Your task to perform on an android device: Search for seafood restaurants on Google Maps Image 0: 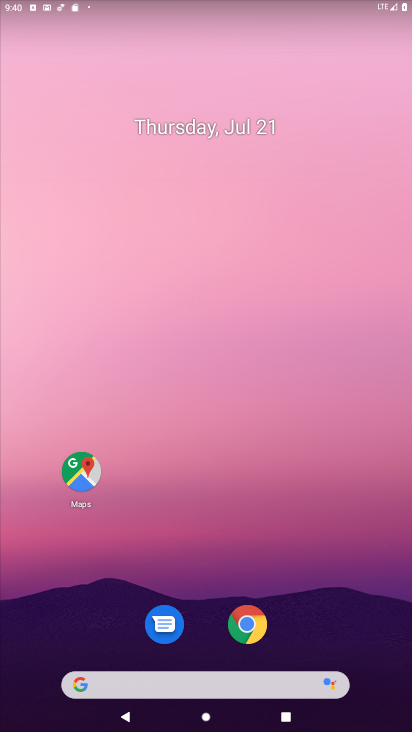
Step 0: drag from (26, 591) to (214, 242)
Your task to perform on an android device: Search for seafood restaurants on Google Maps Image 1: 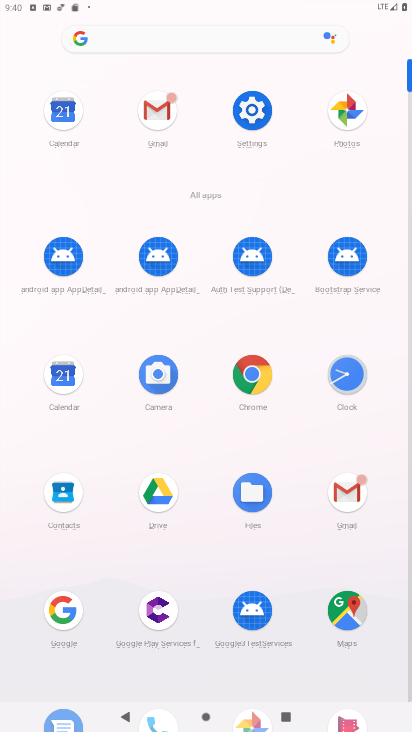
Step 1: click (357, 609)
Your task to perform on an android device: Search for seafood restaurants on Google Maps Image 2: 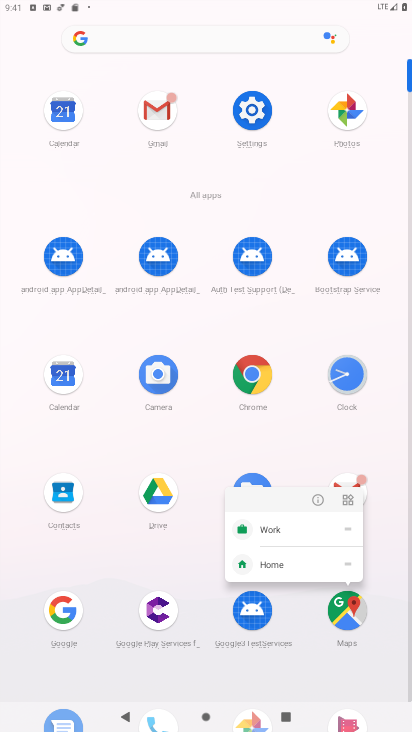
Step 2: press back button
Your task to perform on an android device: Search for seafood restaurants on Google Maps Image 3: 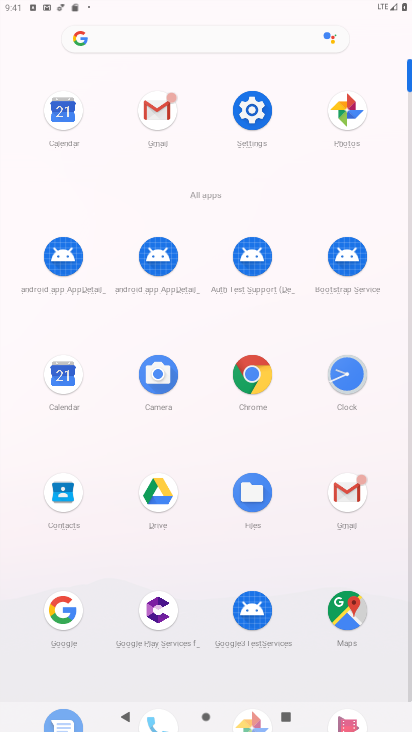
Step 3: click (334, 637)
Your task to perform on an android device: Search for seafood restaurants on Google Maps Image 4: 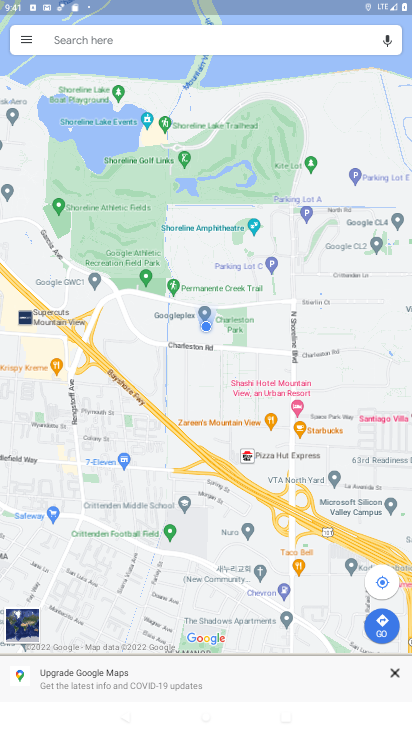
Step 4: click (248, 33)
Your task to perform on an android device: Search for seafood restaurants on Google Maps Image 5: 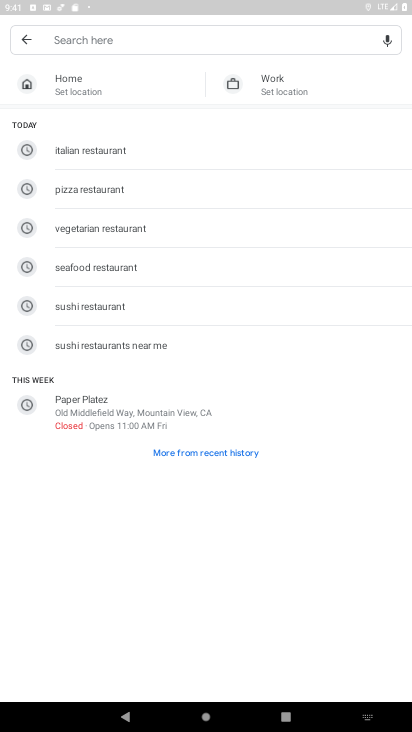
Step 5: type "seafood restaurants"
Your task to perform on an android device: Search for seafood restaurants on Google Maps Image 6: 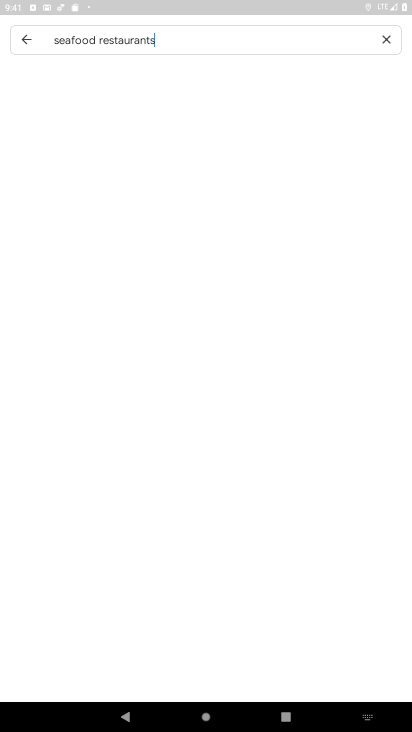
Step 6: type ""
Your task to perform on an android device: Search for seafood restaurants on Google Maps Image 7: 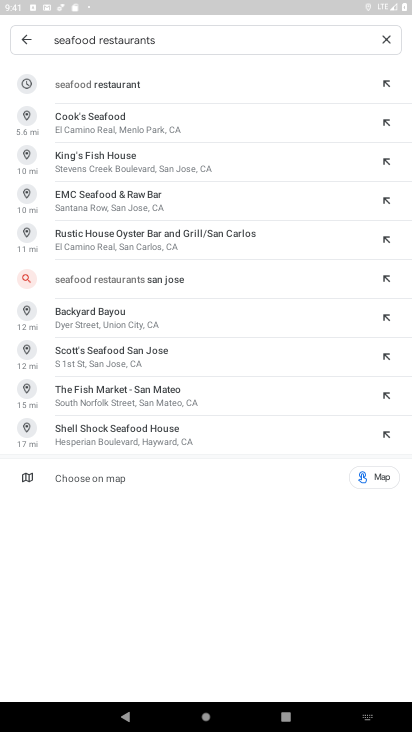
Step 7: click (132, 79)
Your task to perform on an android device: Search for seafood restaurants on Google Maps Image 8: 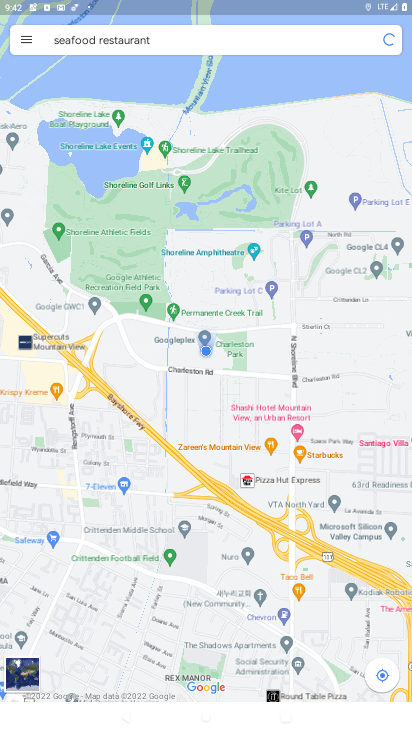
Step 8: task complete